Your task to perform on an android device: Turn off the flashlight Image 0: 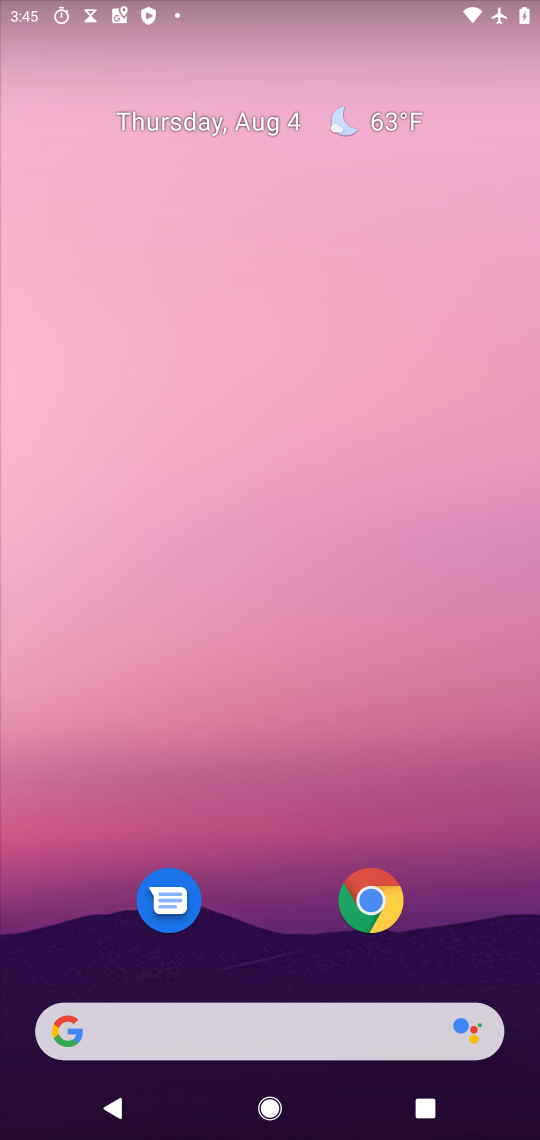
Step 0: drag from (395, 11) to (392, 809)
Your task to perform on an android device: Turn off the flashlight Image 1: 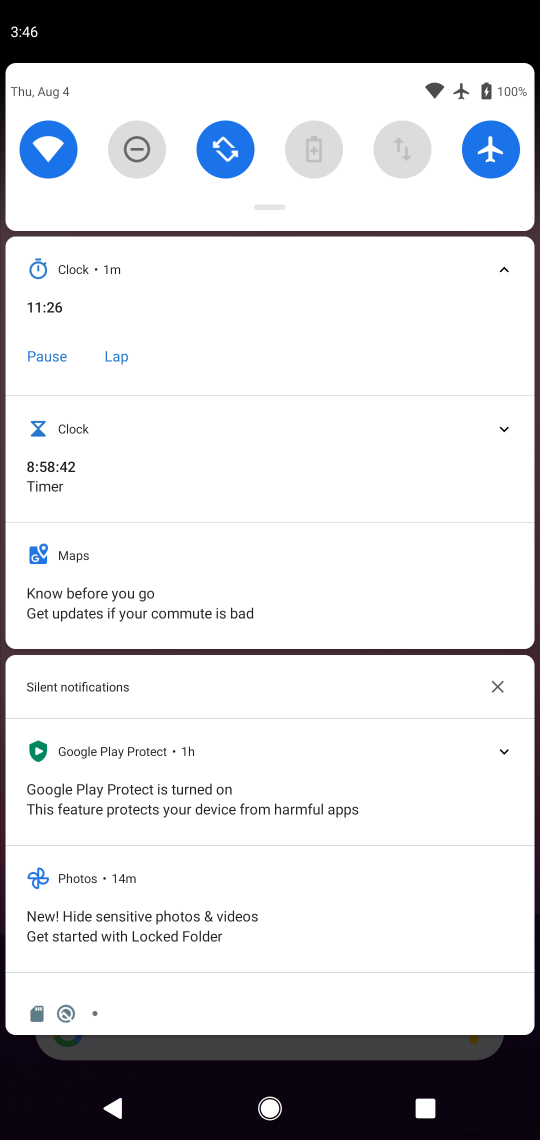
Step 1: drag from (344, 184) to (388, 895)
Your task to perform on an android device: Turn off the flashlight Image 2: 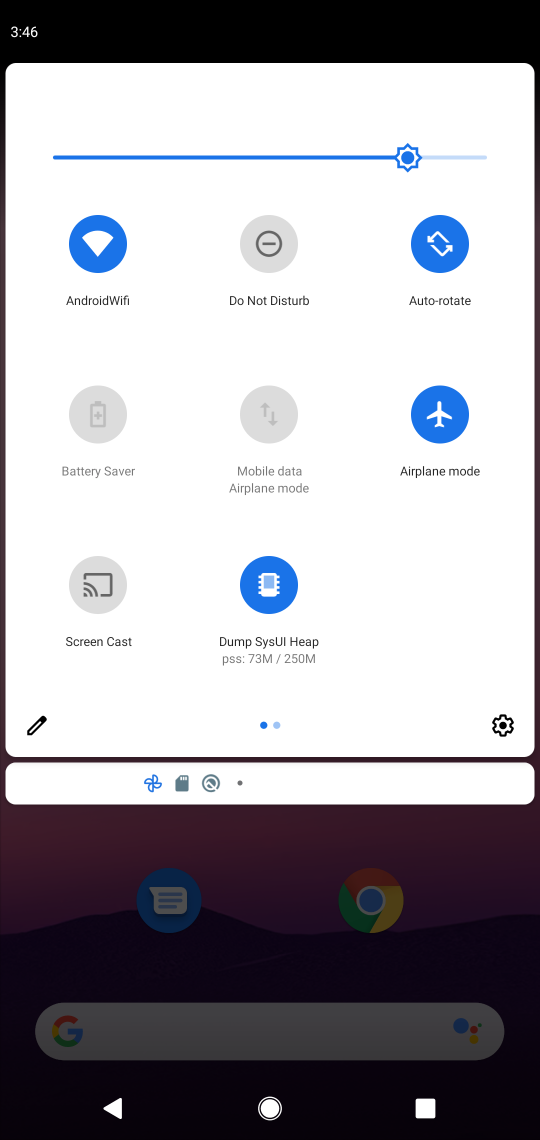
Step 2: drag from (451, 676) to (69, 618)
Your task to perform on an android device: Turn off the flashlight Image 3: 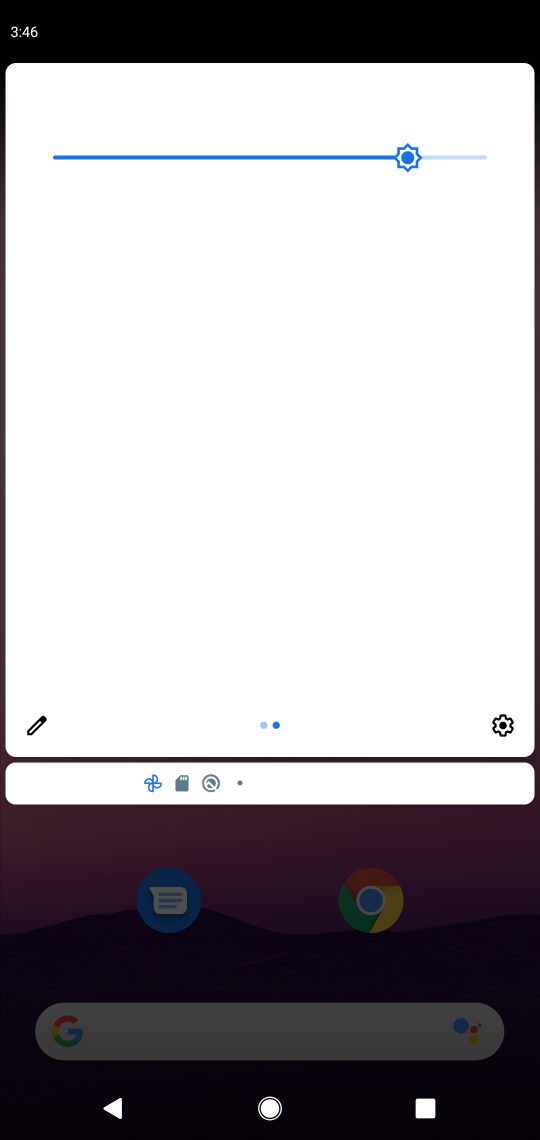
Step 3: click (38, 720)
Your task to perform on an android device: Turn off the flashlight Image 4: 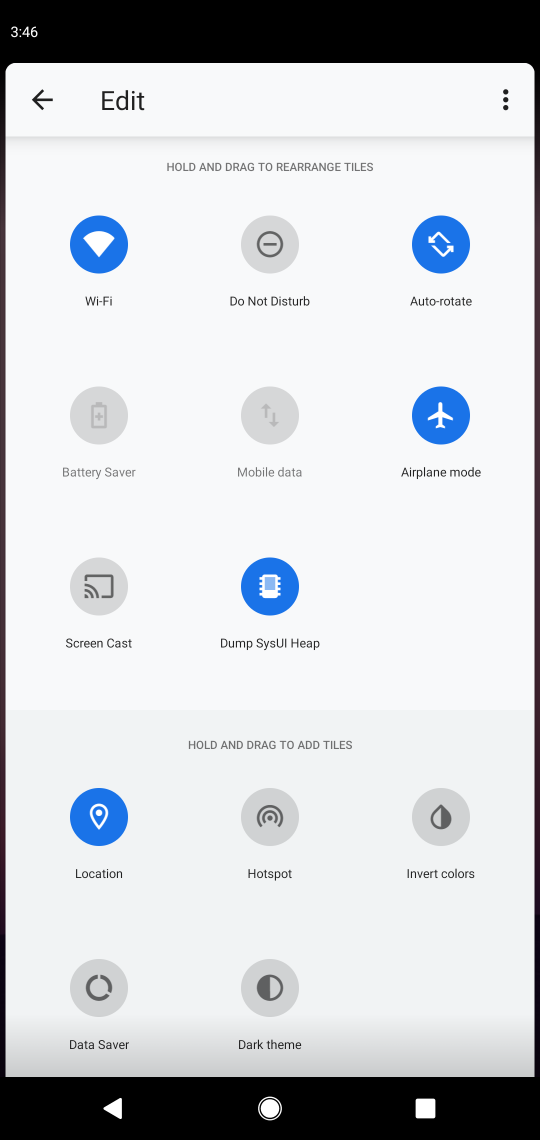
Step 4: task complete